Your task to perform on an android device: See recent photos Image 0: 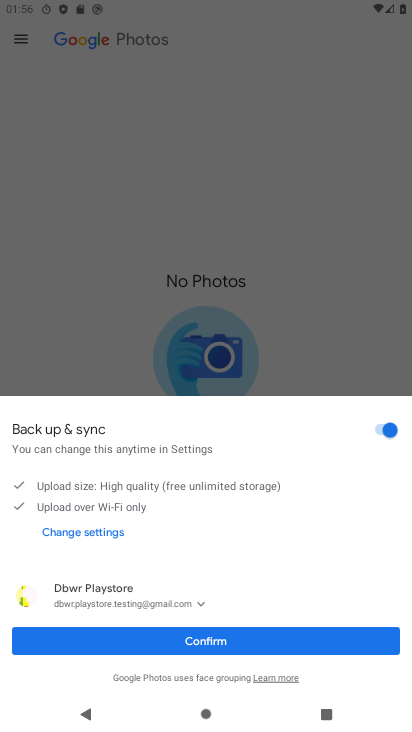
Step 0: press home button
Your task to perform on an android device: See recent photos Image 1: 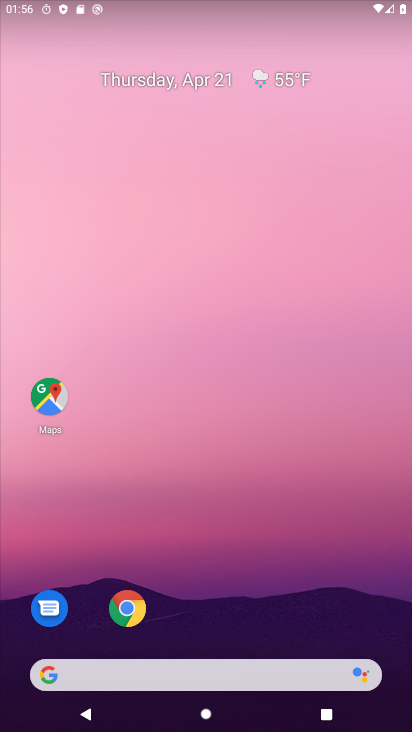
Step 1: drag from (183, 468) to (89, 103)
Your task to perform on an android device: See recent photos Image 2: 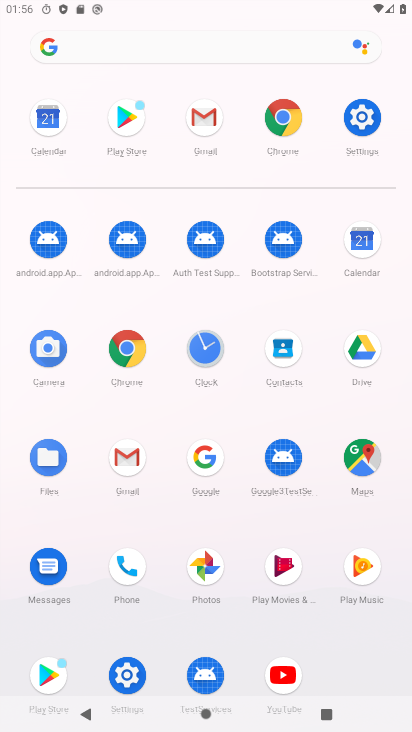
Step 2: click (209, 574)
Your task to perform on an android device: See recent photos Image 3: 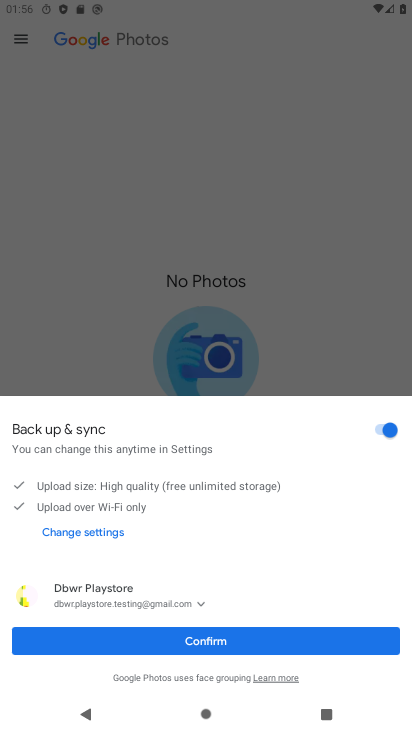
Step 3: click (187, 642)
Your task to perform on an android device: See recent photos Image 4: 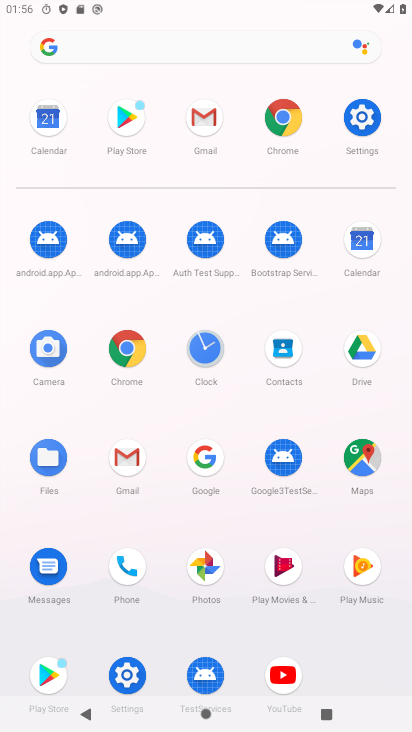
Step 4: click (203, 576)
Your task to perform on an android device: See recent photos Image 5: 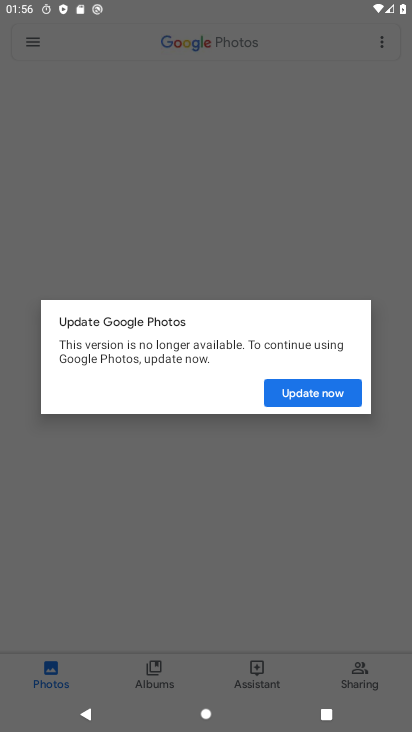
Step 5: click (302, 398)
Your task to perform on an android device: See recent photos Image 6: 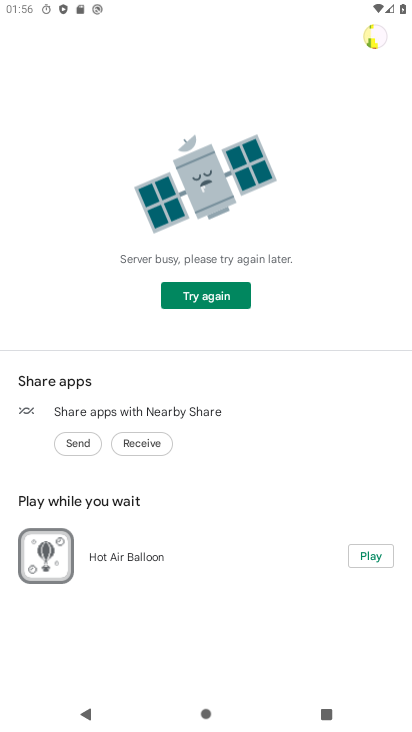
Step 6: press back button
Your task to perform on an android device: See recent photos Image 7: 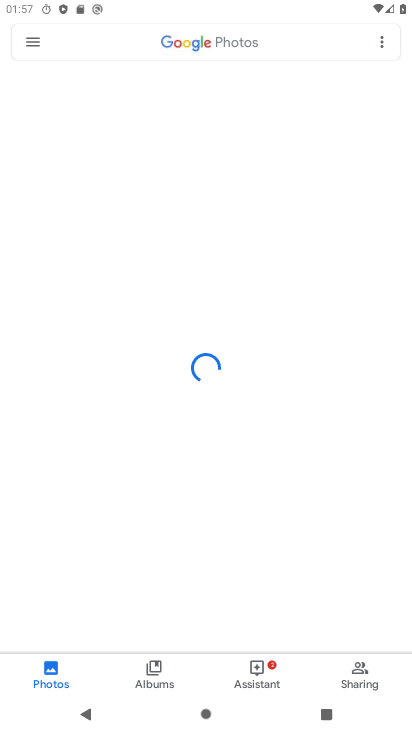
Step 7: drag from (176, 413) to (181, 211)
Your task to perform on an android device: See recent photos Image 8: 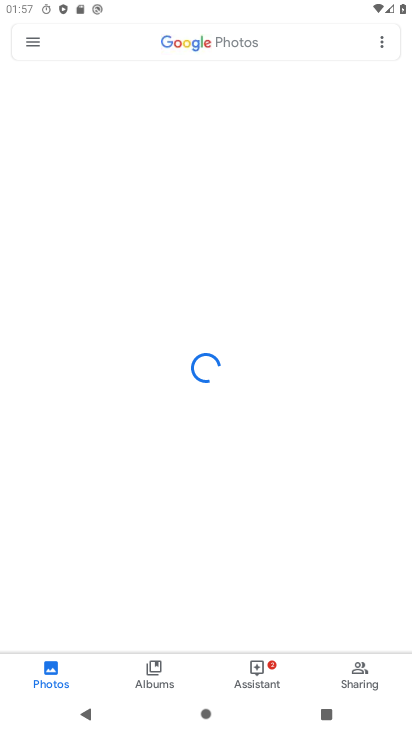
Step 8: drag from (134, 444) to (179, 135)
Your task to perform on an android device: See recent photos Image 9: 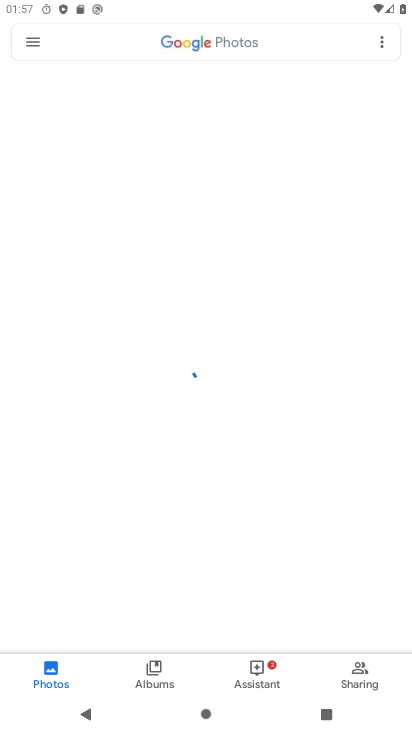
Step 9: drag from (68, 111) to (58, 55)
Your task to perform on an android device: See recent photos Image 10: 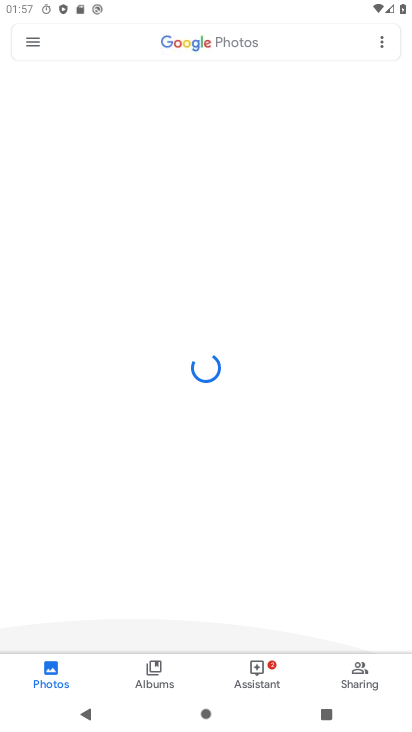
Step 10: click (24, 42)
Your task to perform on an android device: See recent photos Image 11: 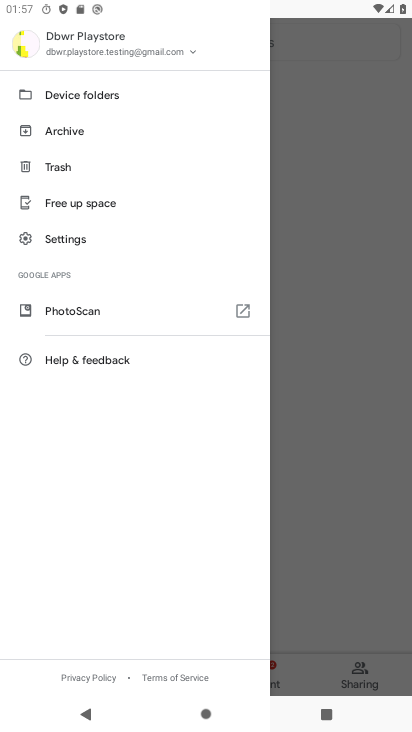
Step 11: click (308, 146)
Your task to perform on an android device: See recent photos Image 12: 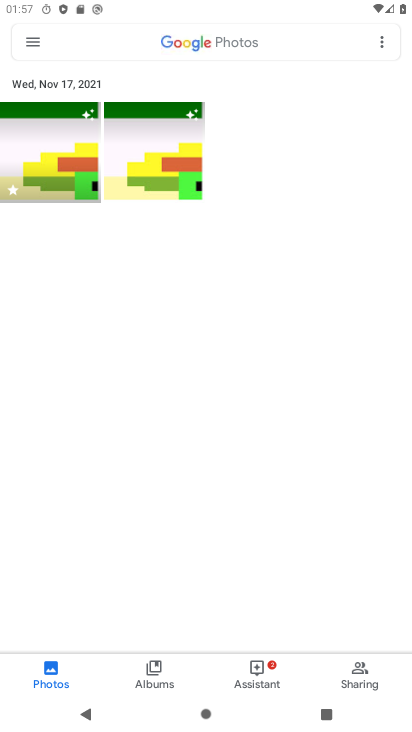
Step 12: task complete